Your task to perform on an android device: star an email in the gmail app Image 0: 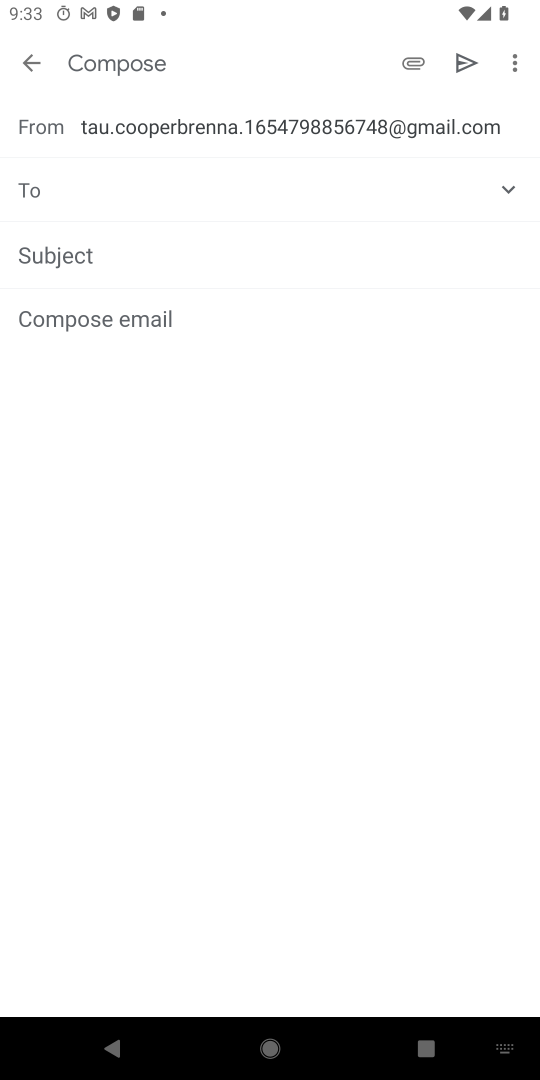
Step 0: press home button
Your task to perform on an android device: star an email in the gmail app Image 1: 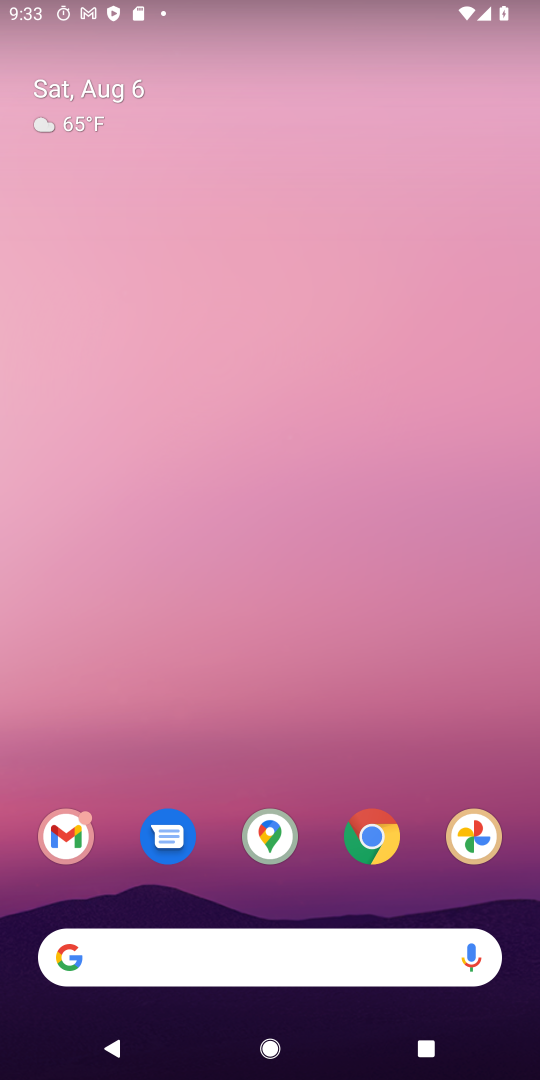
Step 1: drag from (486, 905) to (205, 36)
Your task to perform on an android device: star an email in the gmail app Image 2: 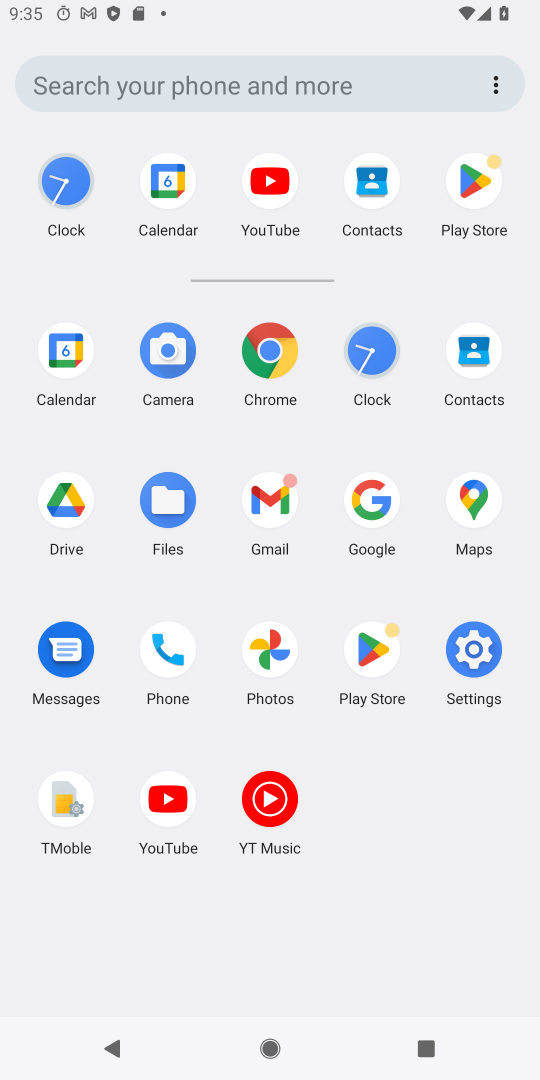
Step 2: click (301, 494)
Your task to perform on an android device: star an email in the gmail app Image 3: 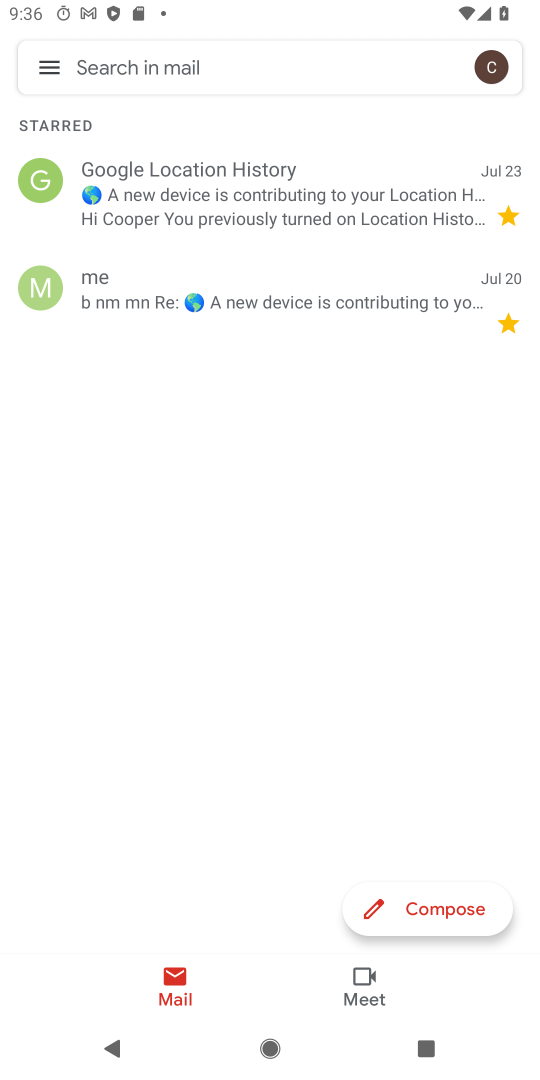
Step 3: task complete